Your task to perform on an android device: set an alarm Image 0: 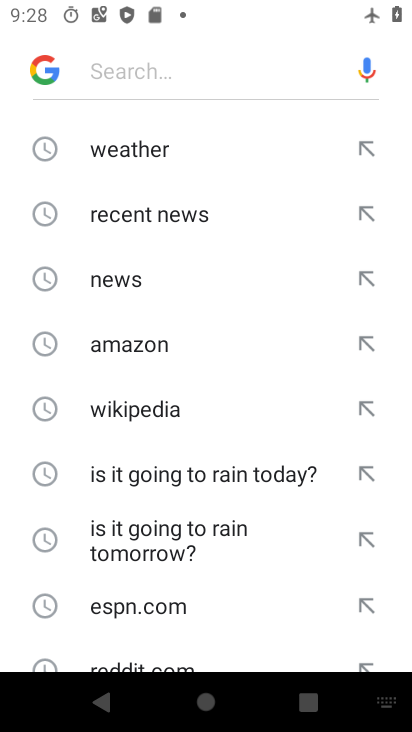
Step 0: press back button
Your task to perform on an android device: set an alarm Image 1: 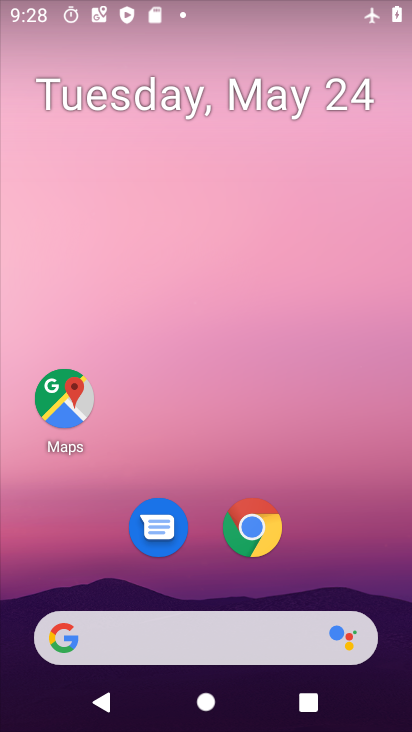
Step 1: drag from (399, 559) to (395, 242)
Your task to perform on an android device: set an alarm Image 2: 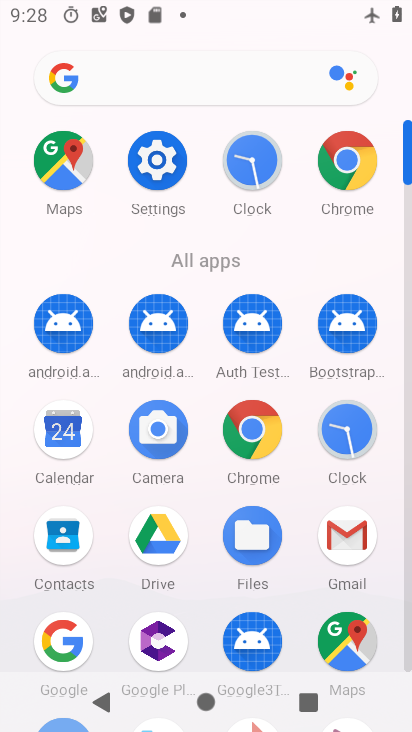
Step 2: click (258, 153)
Your task to perform on an android device: set an alarm Image 3: 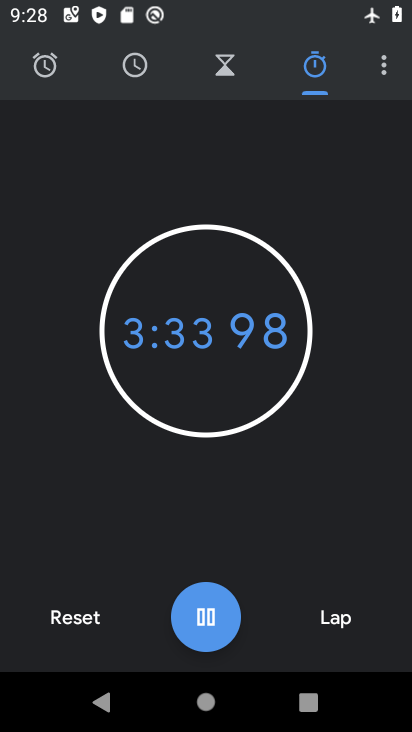
Step 3: click (41, 65)
Your task to perform on an android device: set an alarm Image 4: 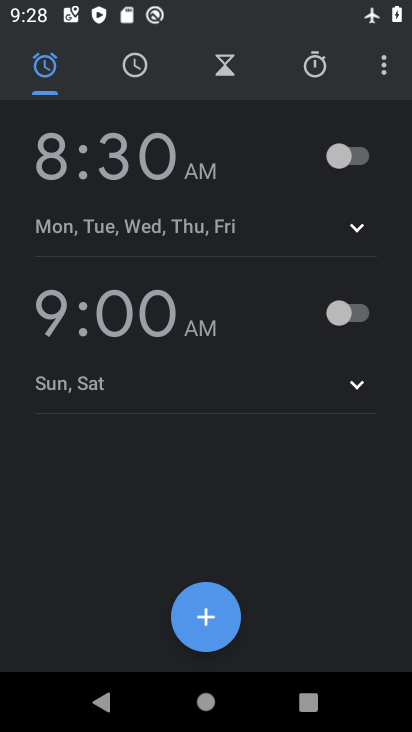
Step 4: click (325, 151)
Your task to perform on an android device: set an alarm Image 5: 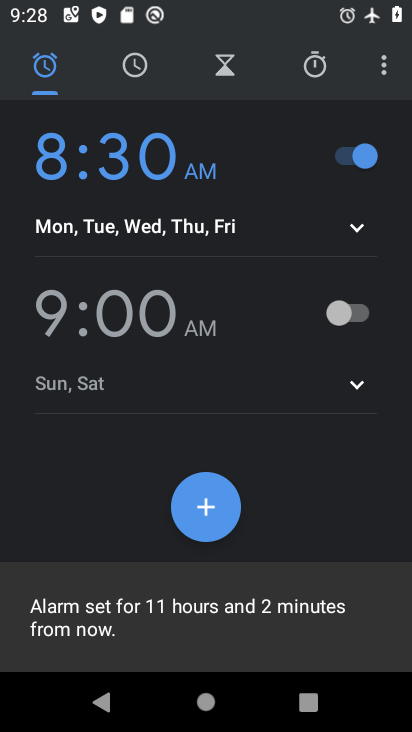
Step 5: task complete